Your task to perform on an android device: turn on showing notifications on the lock screen Image 0: 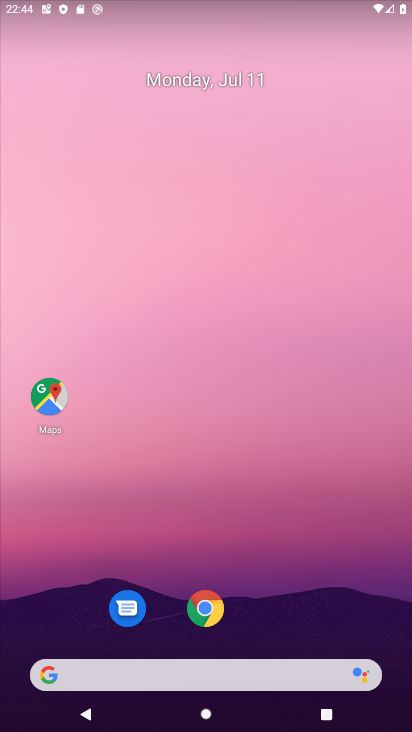
Step 0: drag from (242, 128) to (262, 54)
Your task to perform on an android device: turn on showing notifications on the lock screen Image 1: 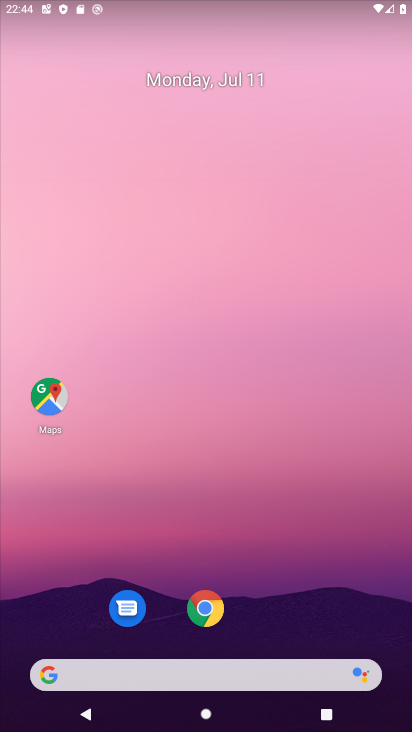
Step 1: drag from (42, 725) to (387, 38)
Your task to perform on an android device: turn on showing notifications on the lock screen Image 2: 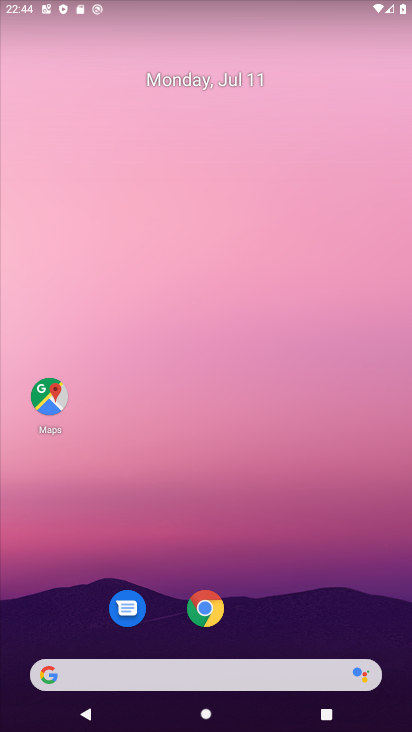
Step 2: drag from (43, 716) to (188, 26)
Your task to perform on an android device: turn on showing notifications on the lock screen Image 3: 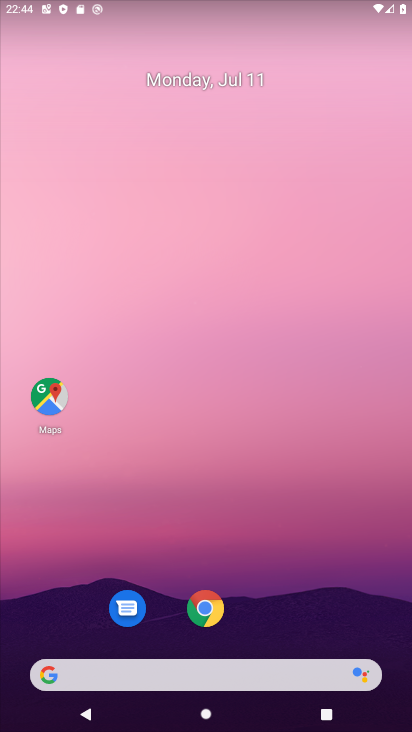
Step 3: drag from (33, 710) to (260, 63)
Your task to perform on an android device: turn on showing notifications on the lock screen Image 4: 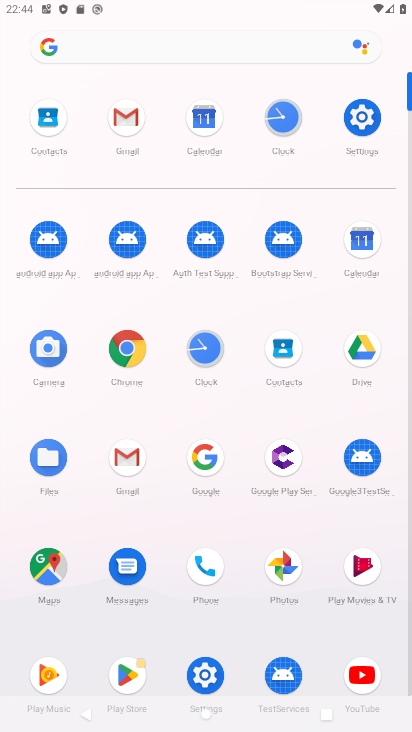
Step 4: click (207, 669)
Your task to perform on an android device: turn on showing notifications on the lock screen Image 5: 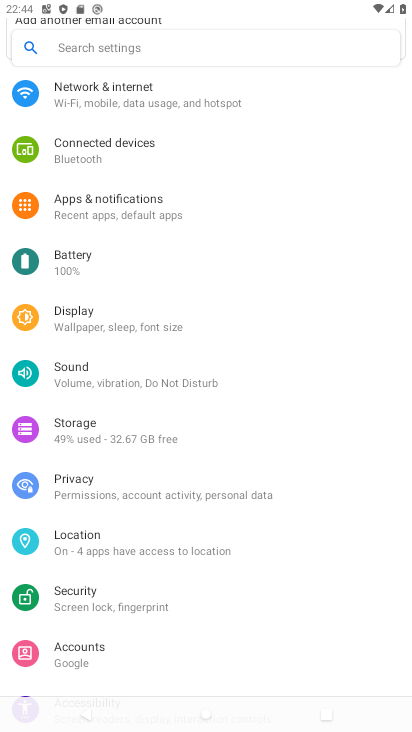
Step 5: click (117, 590)
Your task to perform on an android device: turn on showing notifications on the lock screen Image 6: 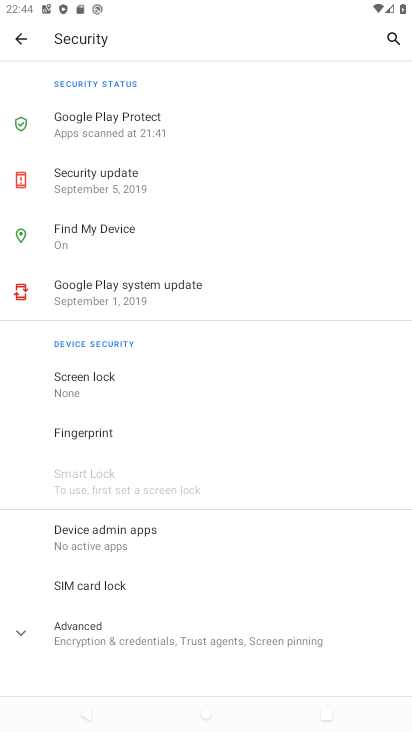
Step 6: click (93, 385)
Your task to perform on an android device: turn on showing notifications on the lock screen Image 7: 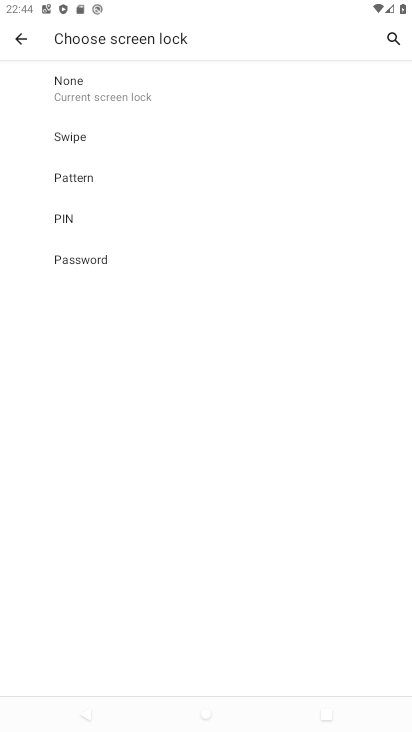
Step 7: click (130, 95)
Your task to perform on an android device: turn on showing notifications on the lock screen Image 8: 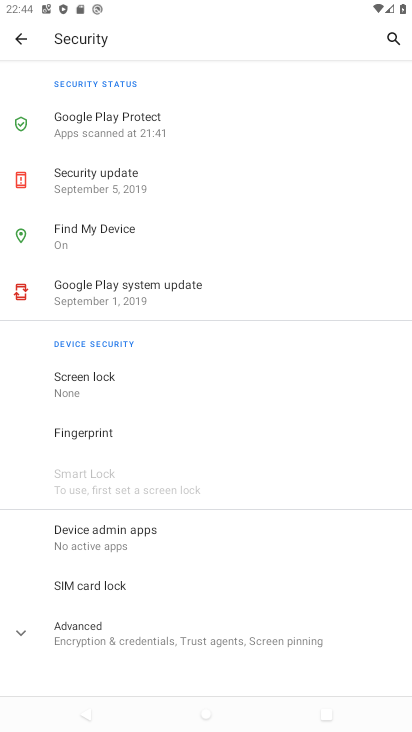
Step 8: click (159, 390)
Your task to perform on an android device: turn on showing notifications on the lock screen Image 9: 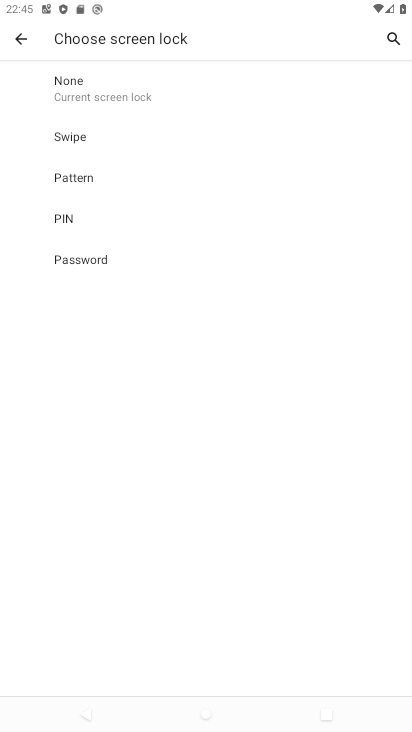
Step 9: task complete